Your task to perform on an android device: Open my contact list Image 0: 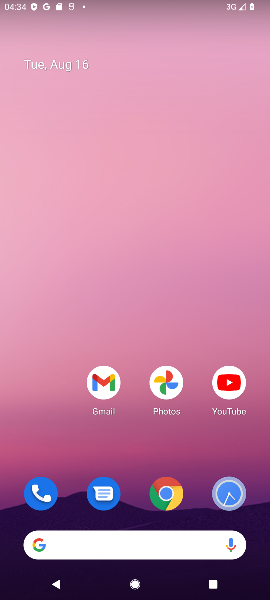
Step 0: press home button
Your task to perform on an android device: Open my contact list Image 1: 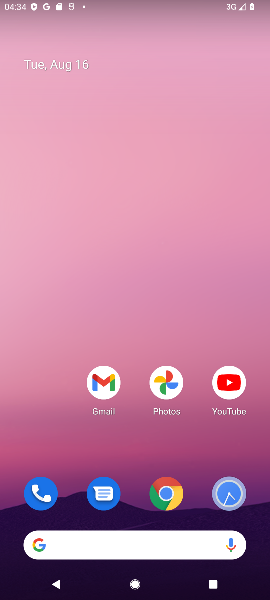
Step 1: drag from (68, 517) to (143, 165)
Your task to perform on an android device: Open my contact list Image 2: 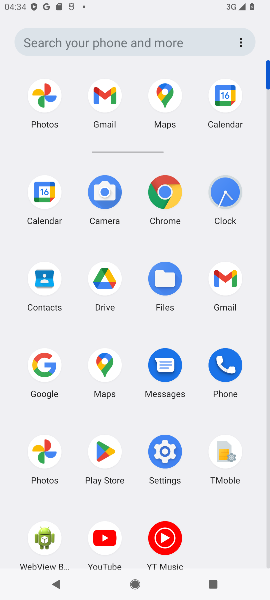
Step 2: click (37, 271)
Your task to perform on an android device: Open my contact list Image 3: 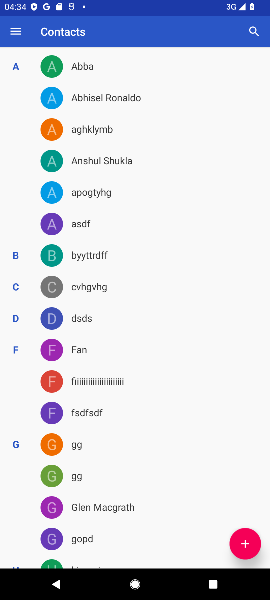
Step 3: task complete